Your task to perform on an android device: Open internet settings Image 0: 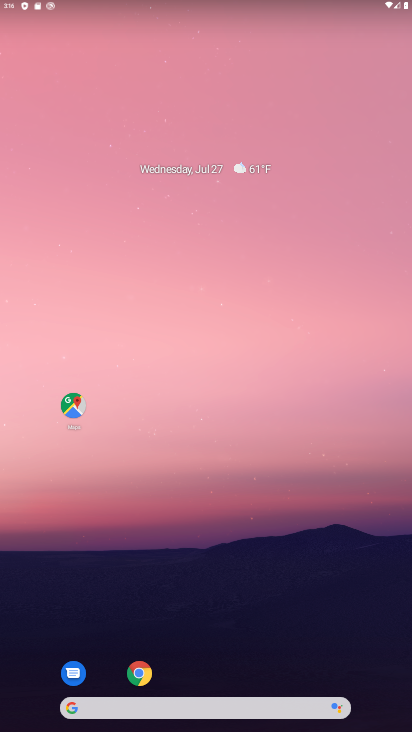
Step 0: drag from (224, 661) to (219, 294)
Your task to perform on an android device: Open internet settings Image 1: 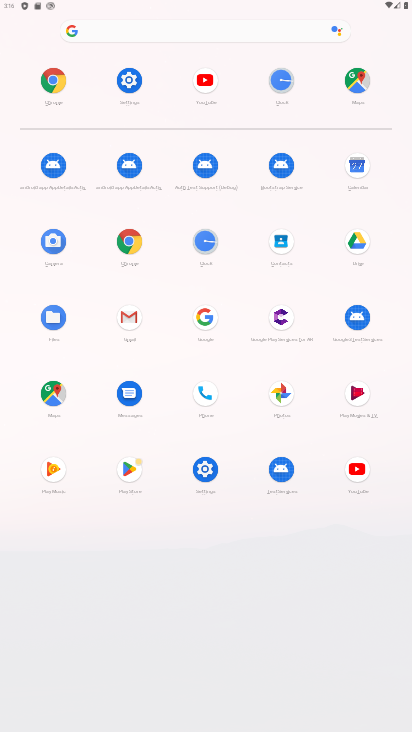
Step 1: click (202, 474)
Your task to perform on an android device: Open internet settings Image 2: 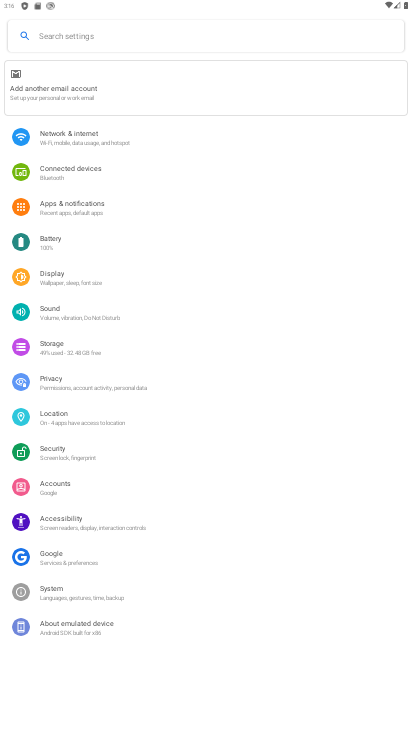
Step 2: click (97, 127)
Your task to perform on an android device: Open internet settings Image 3: 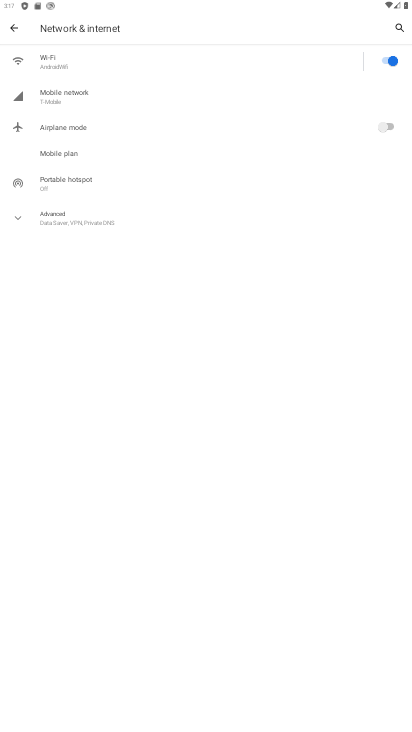
Step 3: task complete